Your task to perform on an android device: Go to display settings Image 0: 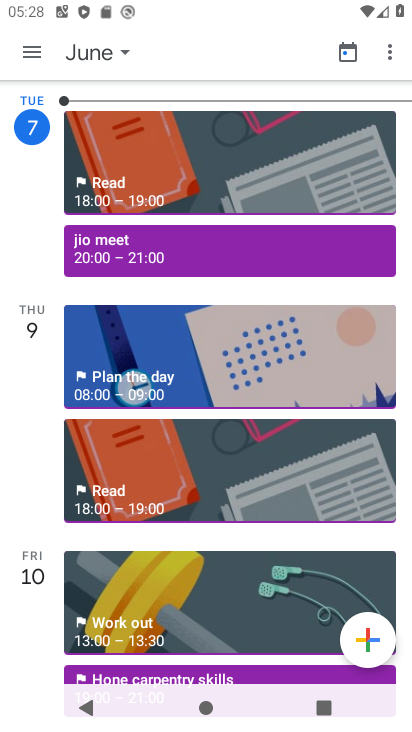
Step 0: press back button
Your task to perform on an android device: Go to display settings Image 1: 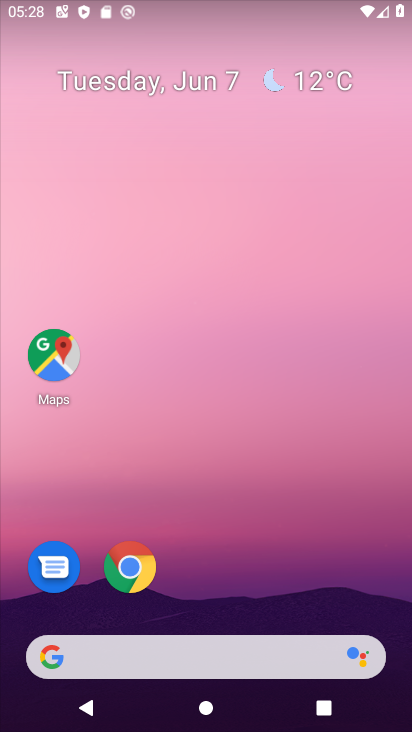
Step 1: drag from (228, 549) to (222, 22)
Your task to perform on an android device: Go to display settings Image 2: 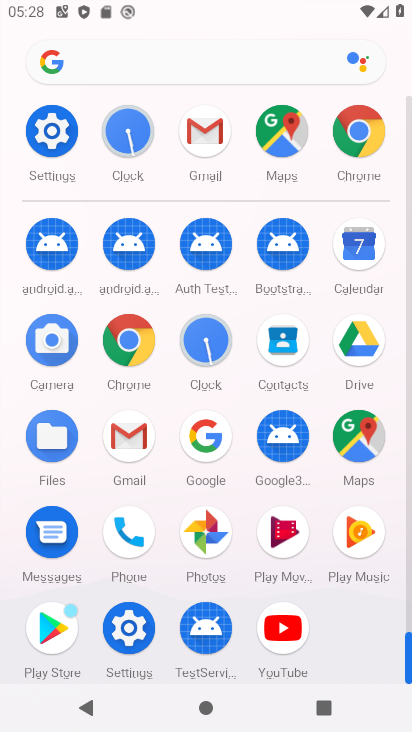
Step 2: click (53, 130)
Your task to perform on an android device: Go to display settings Image 3: 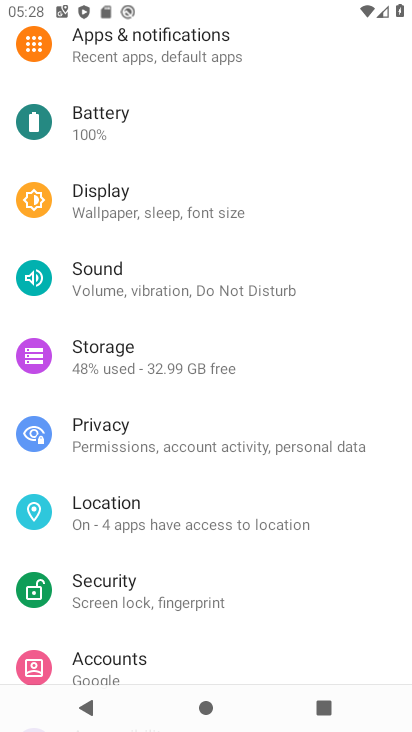
Step 3: click (130, 190)
Your task to perform on an android device: Go to display settings Image 4: 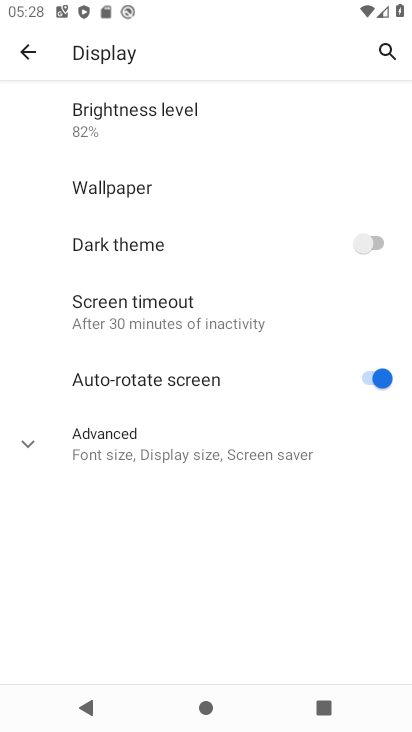
Step 4: click (29, 432)
Your task to perform on an android device: Go to display settings Image 5: 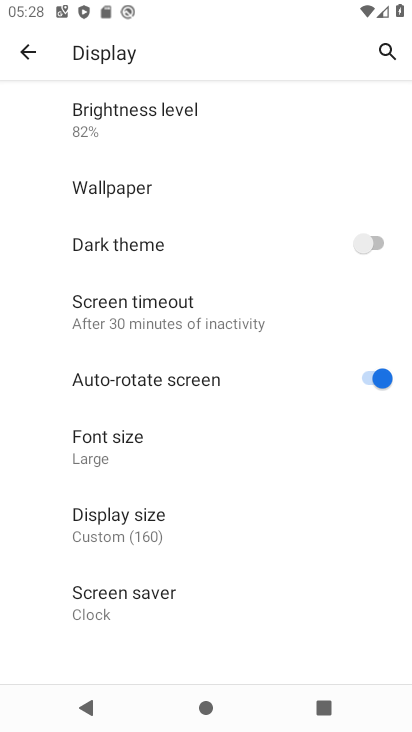
Step 5: task complete